Your task to perform on an android device: toggle translation in the chrome app Image 0: 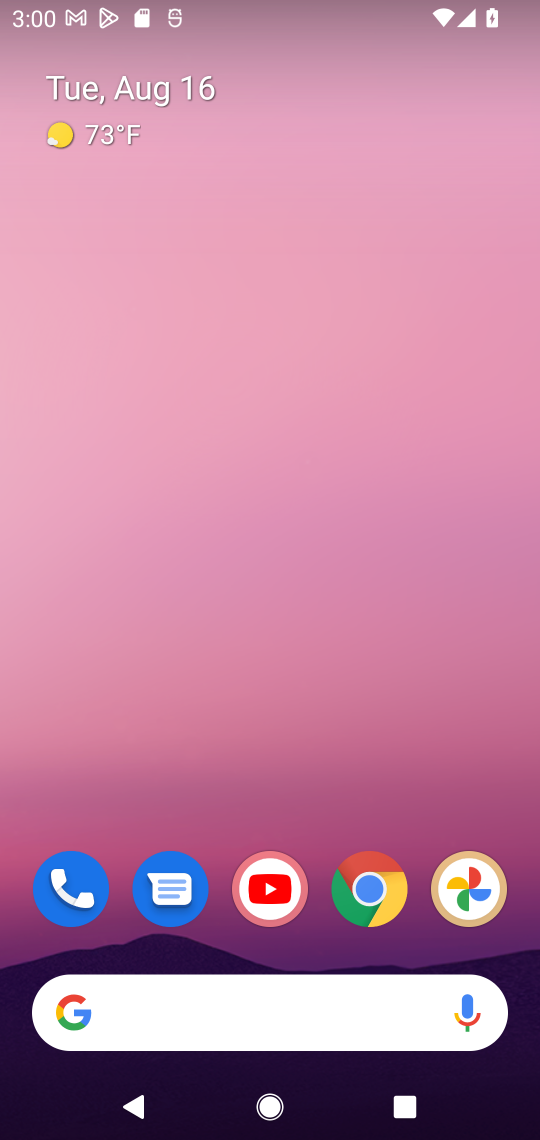
Step 0: click (390, 886)
Your task to perform on an android device: toggle translation in the chrome app Image 1: 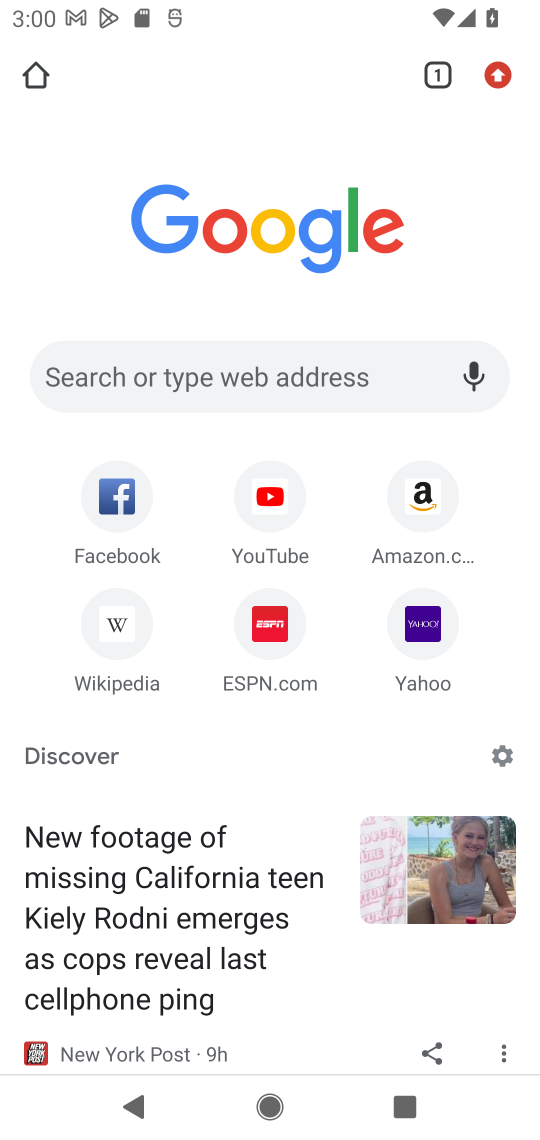
Step 1: task complete